Your task to perform on an android device: install app "Speedtest by Ookla" Image 0: 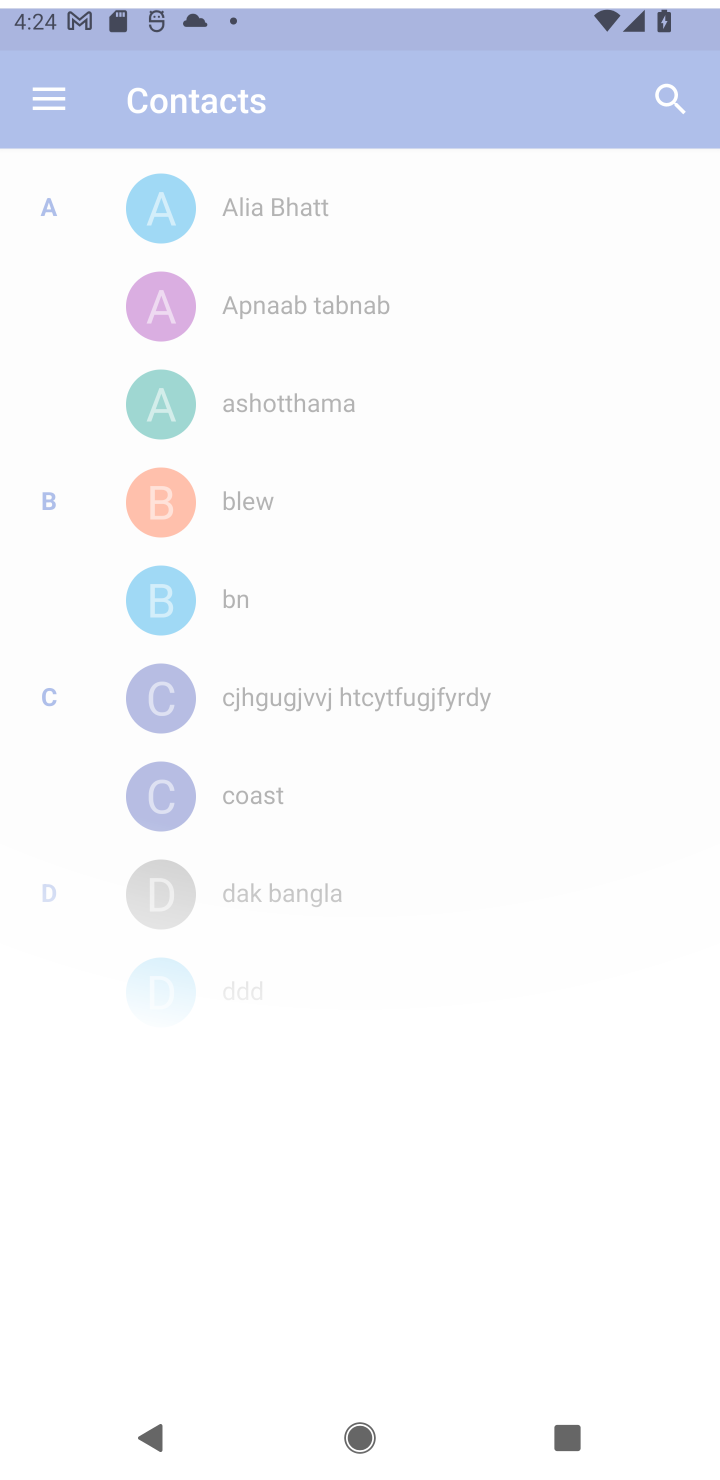
Step 0: press home button
Your task to perform on an android device: install app "Speedtest by Ookla" Image 1: 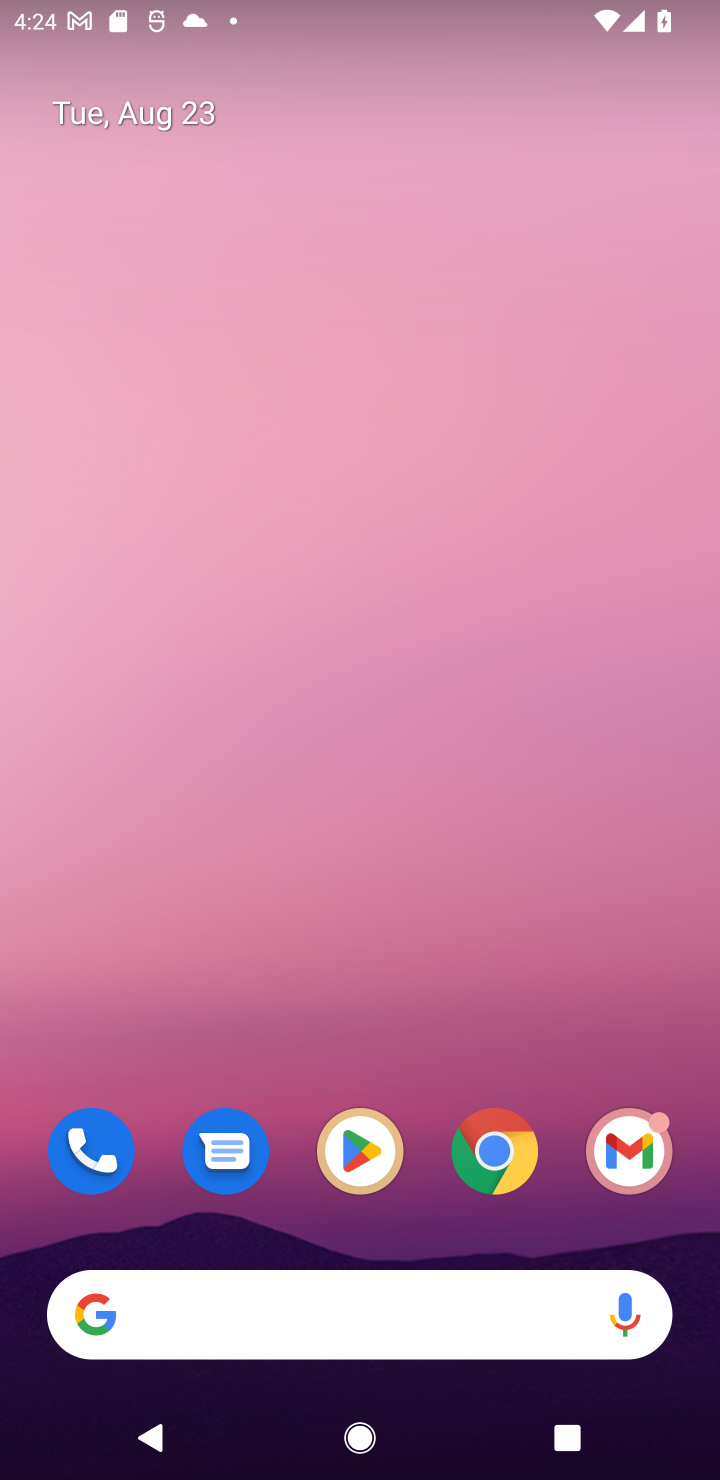
Step 1: click (358, 1152)
Your task to perform on an android device: install app "Speedtest by Ookla" Image 2: 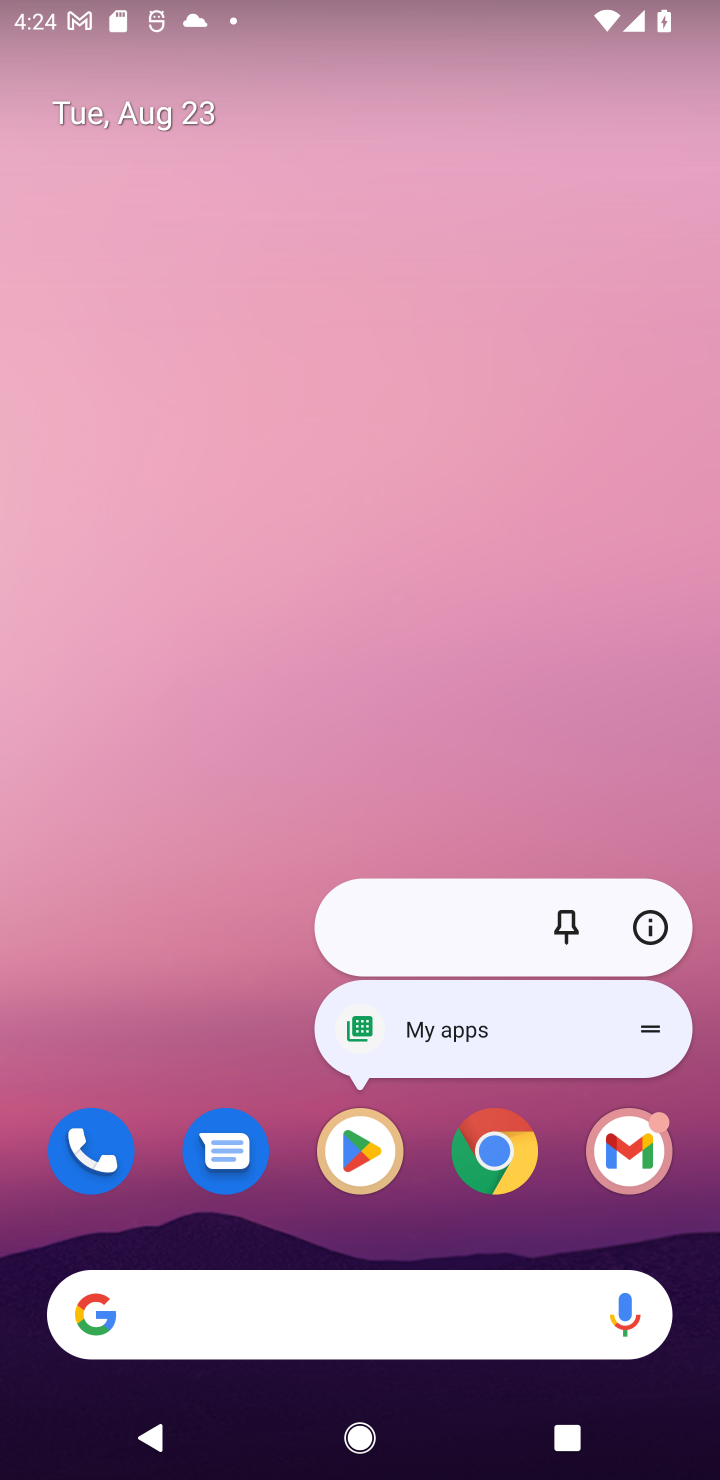
Step 2: click (354, 1157)
Your task to perform on an android device: install app "Speedtest by Ookla" Image 3: 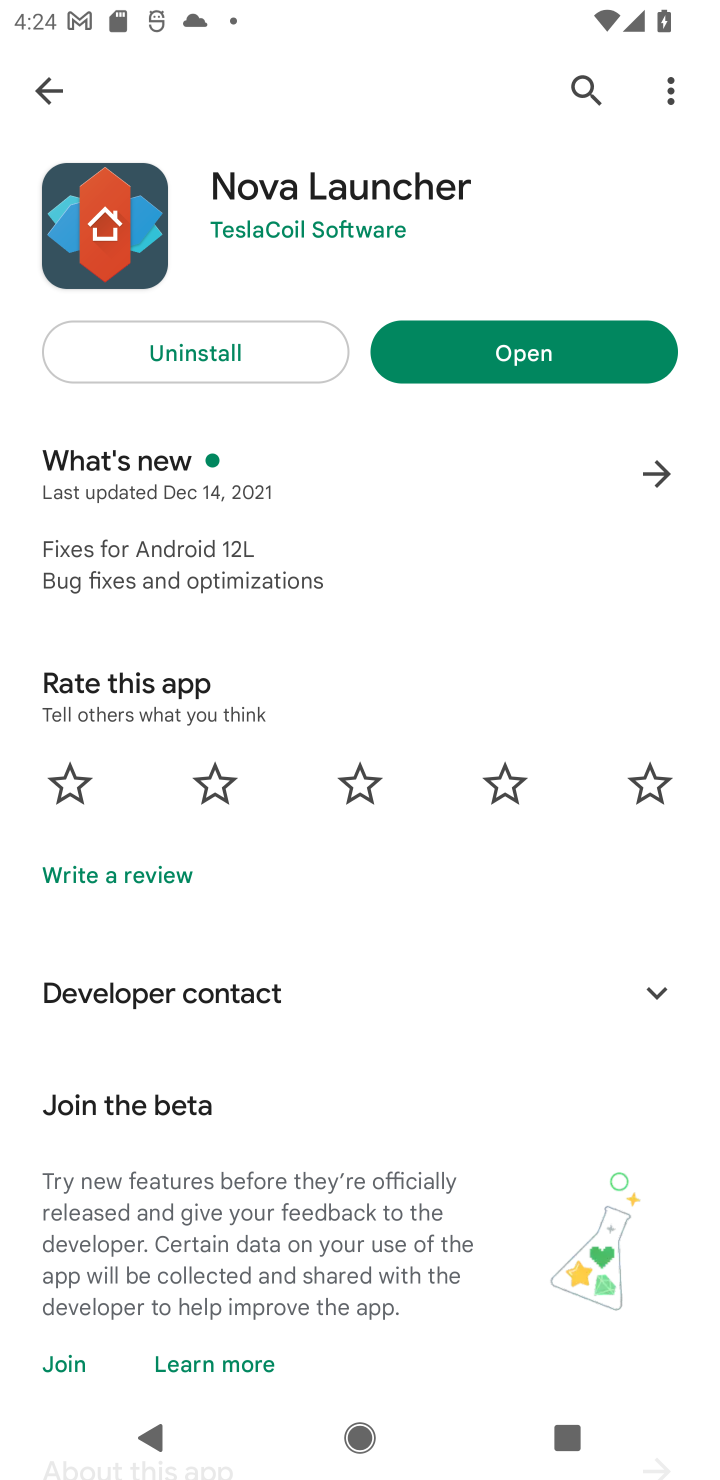
Step 3: click (584, 77)
Your task to perform on an android device: install app "Speedtest by Ookla" Image 4: 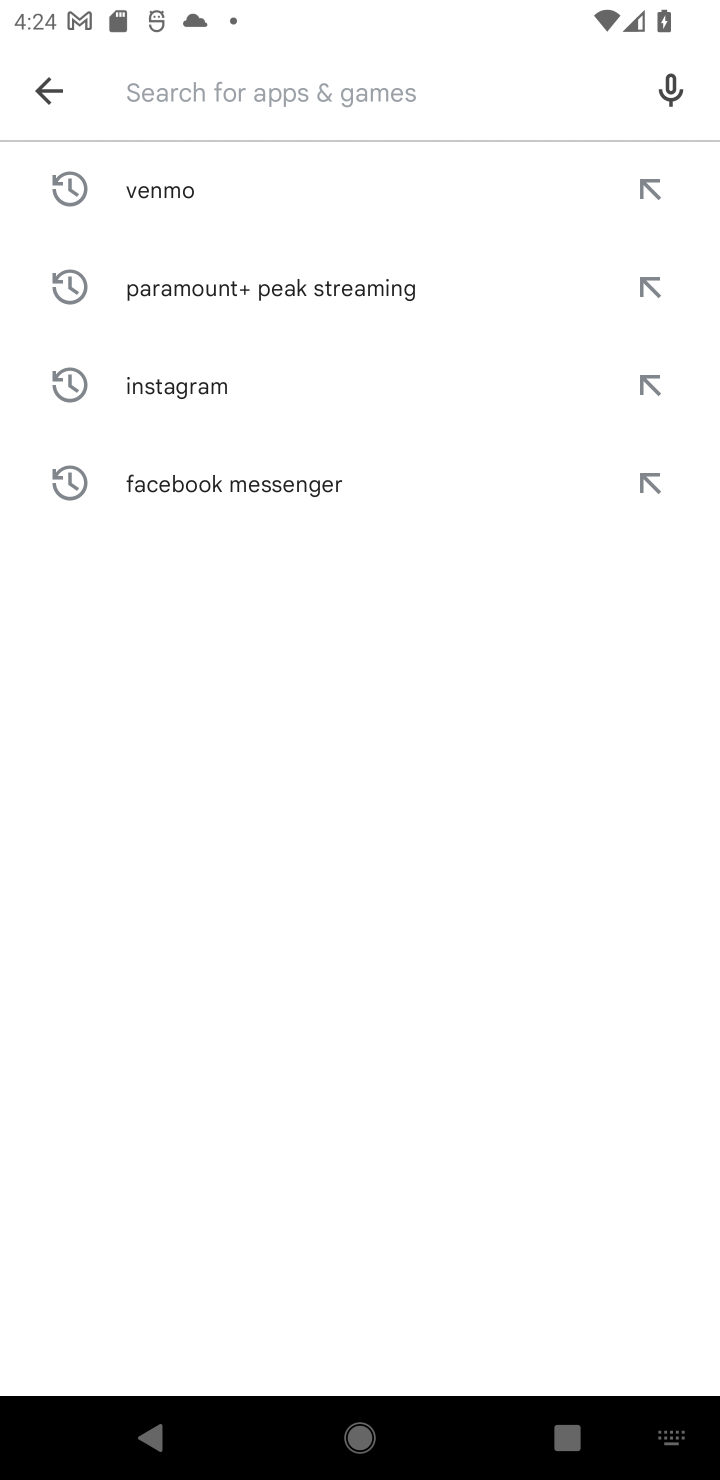
Step 4: type "Speedtest by Ookla"
Your task to perform on an android device: install app "Speedtest by Ookla" Image 5: 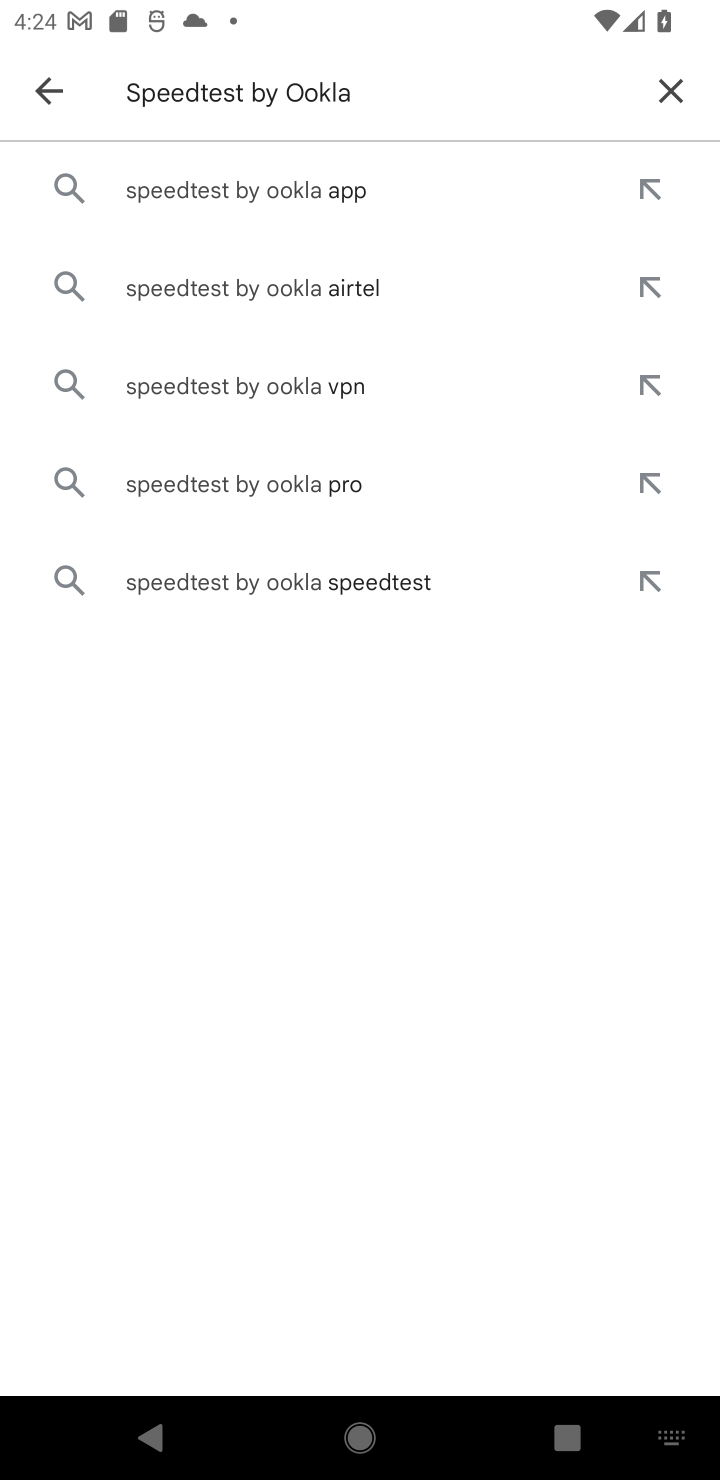
Step 5: click (313, 189)
Your task to perform on an android device: install app "Speedtest by Ookla" Image 6: 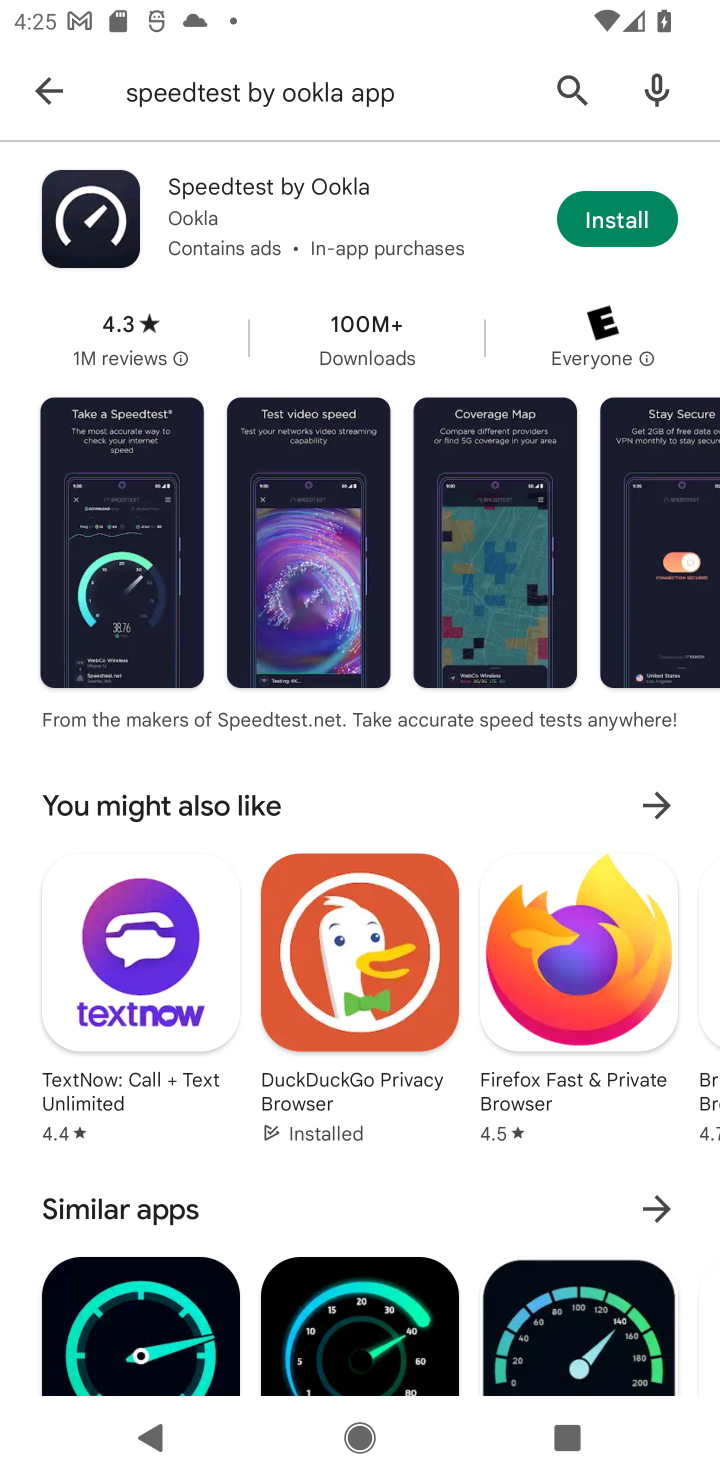
Step 6: click (632, 223)
Your task to perform on an android device: install app "Speedtest by Ookla" Image 7: 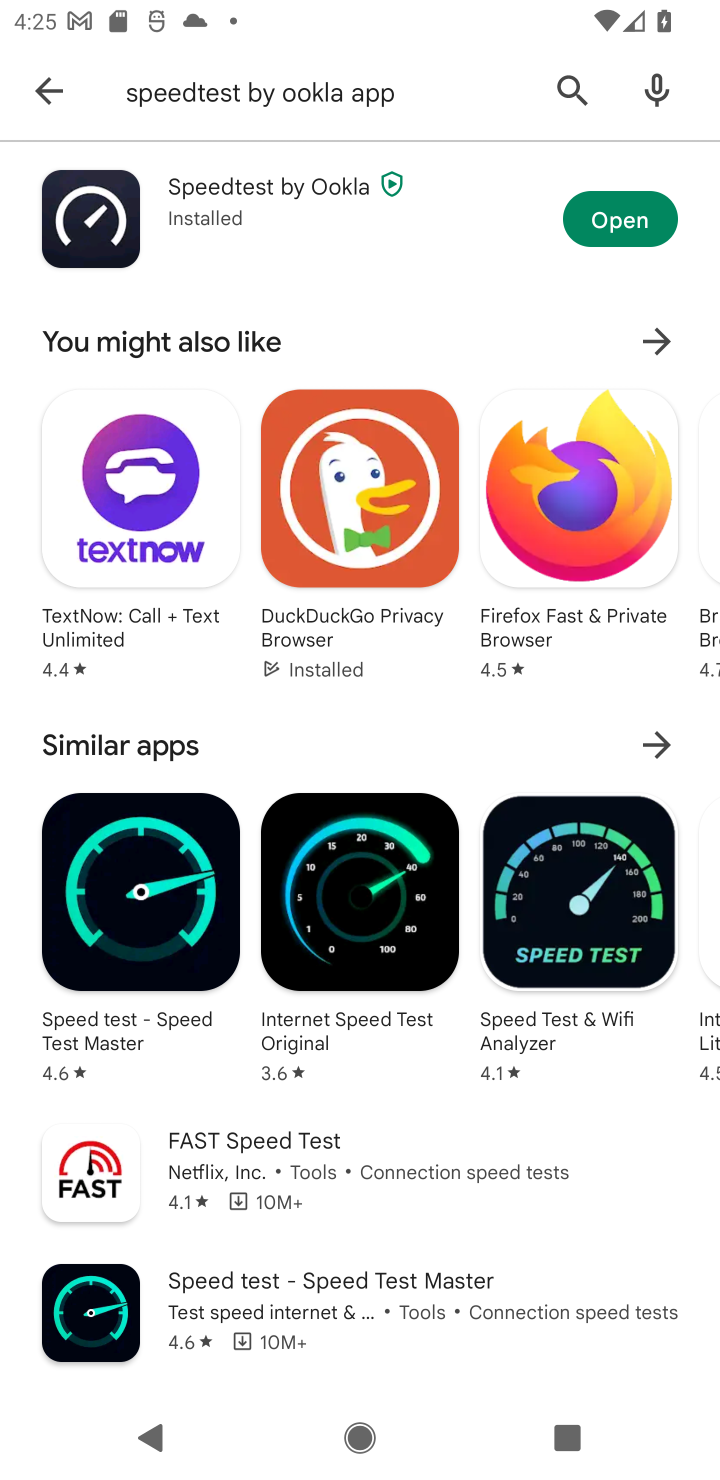
Step 7: task complete